Your task to perform on an android device: toggle location history Image 0: 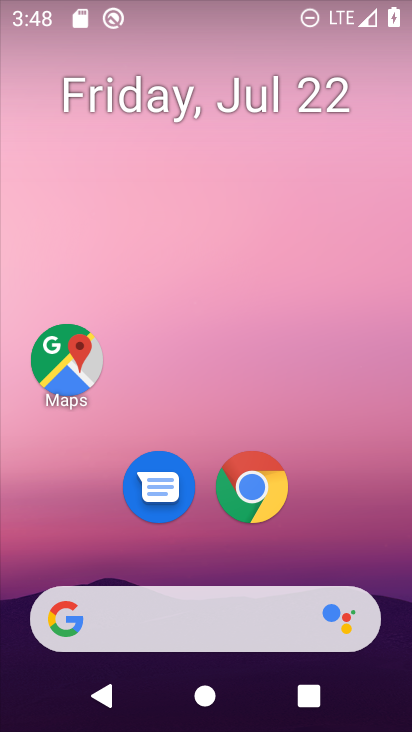
Step 0: drag from (201, 560) to (278, 11)
Your task to perform on an android device: toggle location history Image 1: 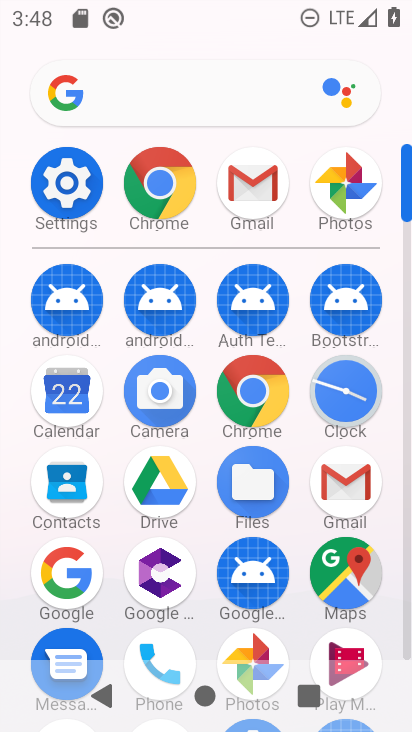
Step 1: click (58, 183)
Your task to perform on an android device: toggle location history Image 2: 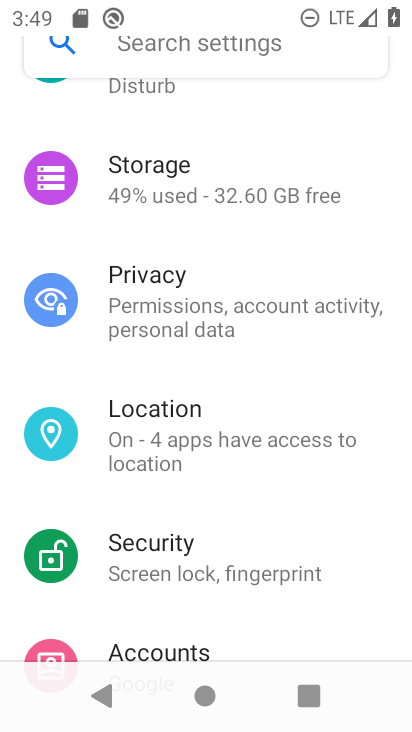
Step 2: click (172, 447)
Your task to perform on an android device: toggle location history Image 3: 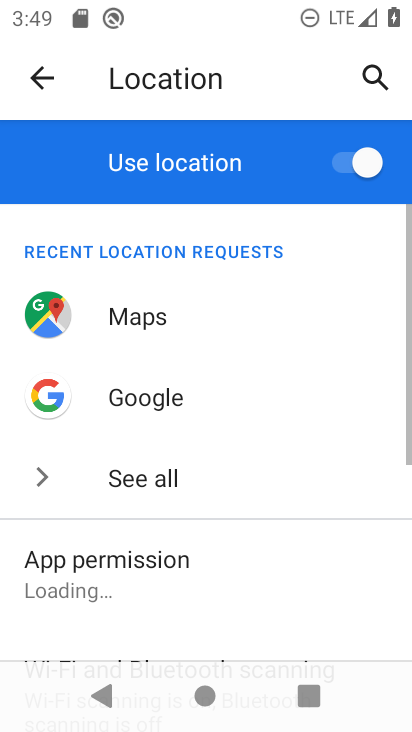
Step 3: drag from (153, 630) to (241, 184)
Your task to perform on an android device: toggle location history Image 4: 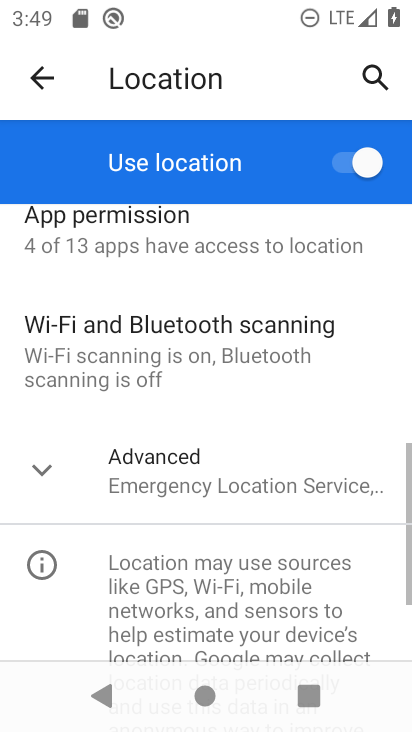
Step 4: click (158, 484)
Your task to perform on an android device: toggle location history Image 5: 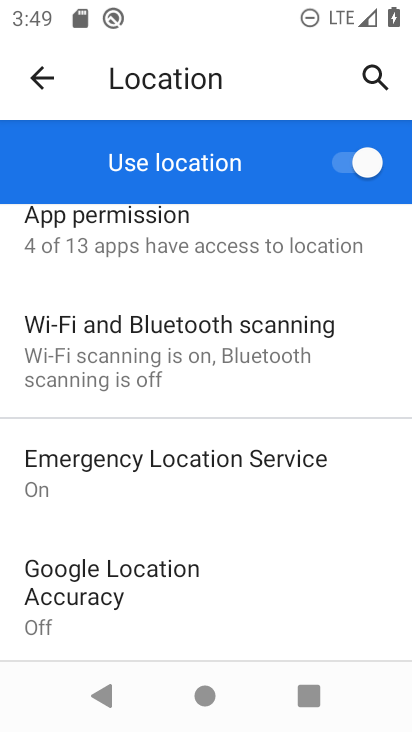
Step 5: drag from (128, 608) to (189, 236)
Your task to perform on an android device: toggle location history Image 6: 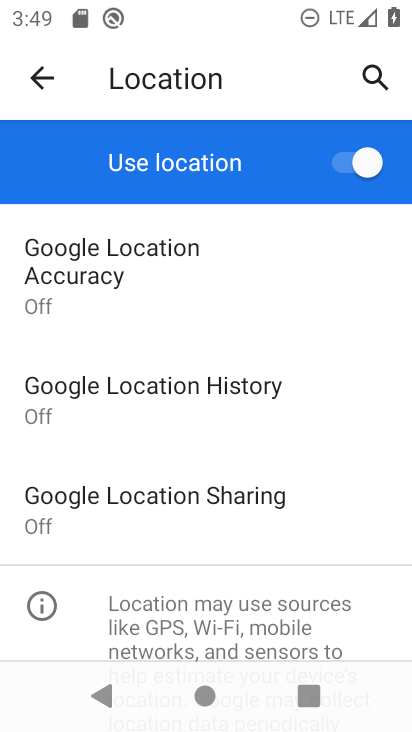
Step 6: click (91, 379)
Your task to perform on an android device: toggle location history Image 7: 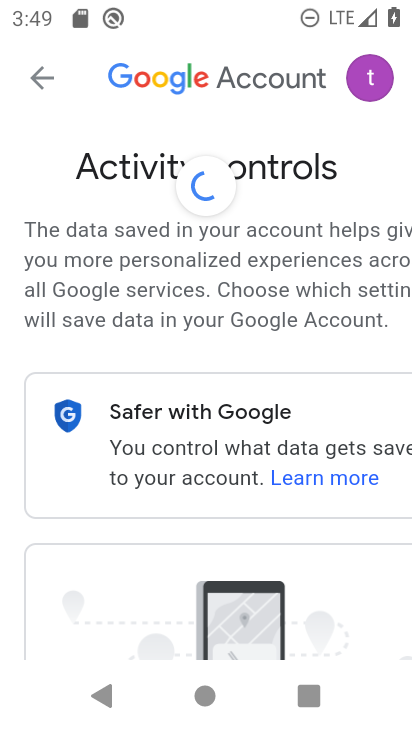
Step 7: task complete